Your task to perform on an android device: turn off picture-in-picture Image 0: 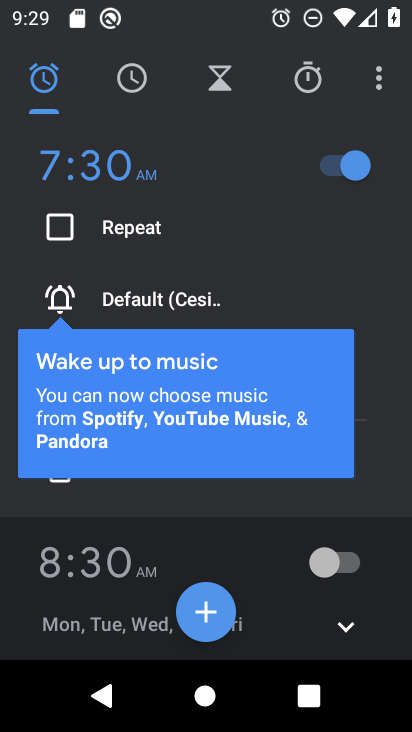
Step 0: press home button
Your task to perform on an android device: turn off picture-in-picture Image 1: 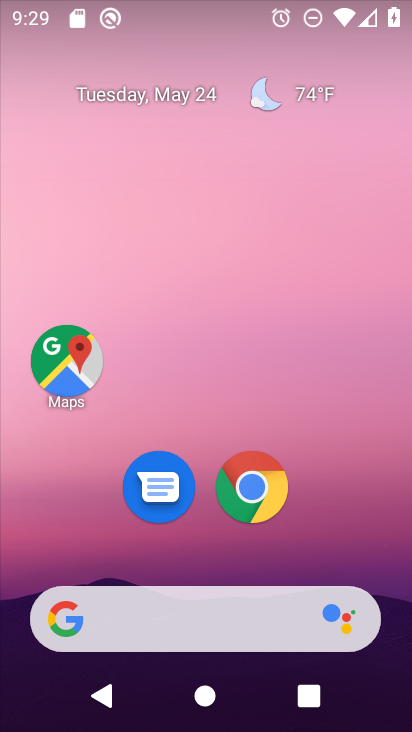
Step 1: click (248, 488)
Your task to perform on an android device: turn off picture-in-picture Image 2: 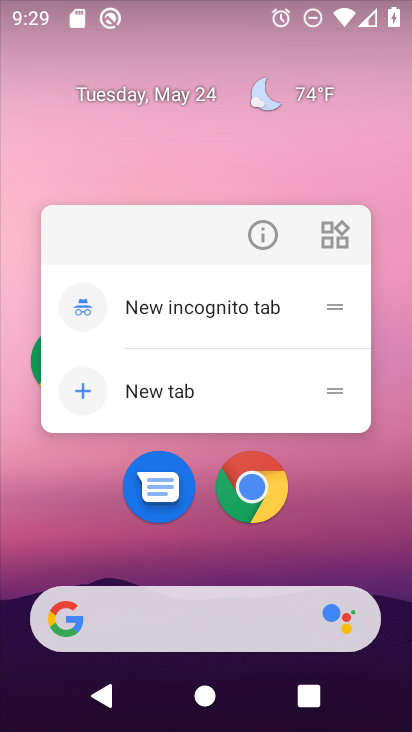
Step 2: click (267, 234)
Your task to perform on an android device: turn off picture-in-picture Image 3: 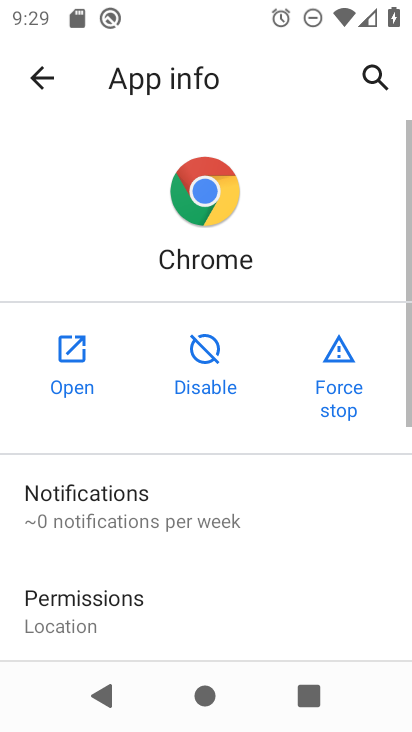
Step 3: drag from (271, 567) to (262, 105)
Your task to perform on an android device: turn off picture-in-picture Image 4: 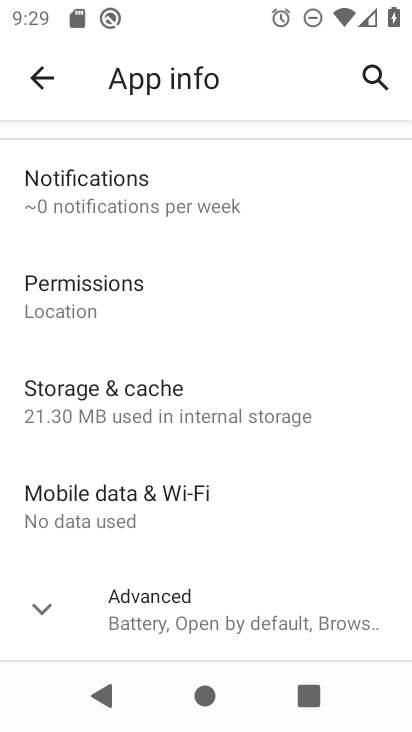
Step 4: drag from (262, 480) to (225, 173)
Your task to perform on an android device: turn off picture-in-picture Image 5: 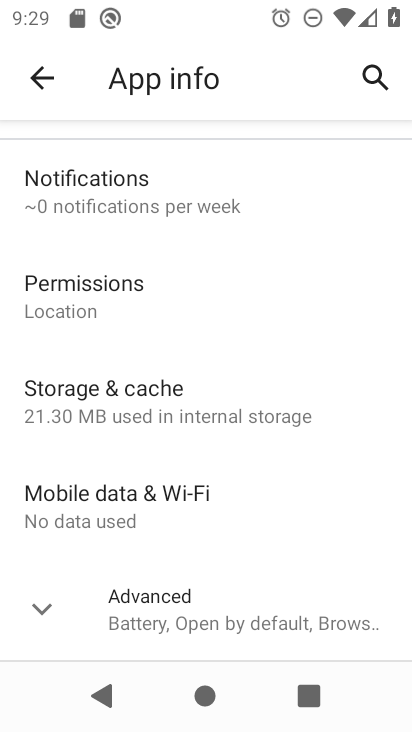
Step 5: click (41, 619)
Your task to perform on an android device: turn off picture-in-picture Image 6: 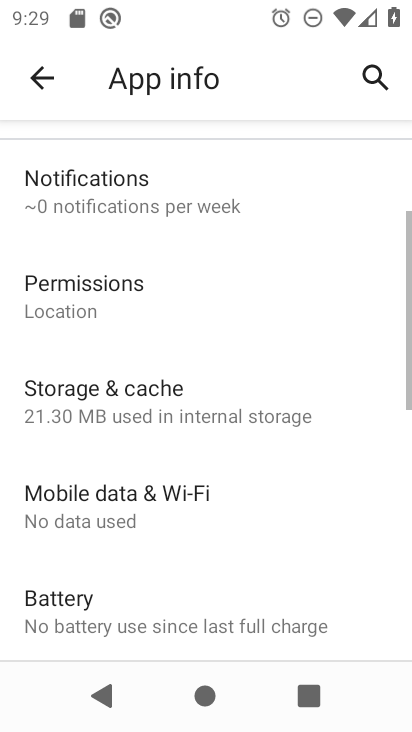
Step 6: drag from (255, 603) to (249, 151)
Your task to perform on an android device: turn off picture-in-picture Image 7: 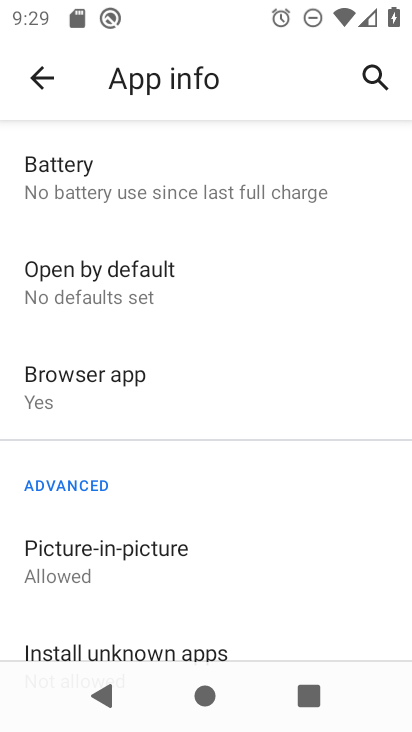
Step 7: click (133, 557)
Your task to perform on an android device: turn off picture-in-picture Image 8: 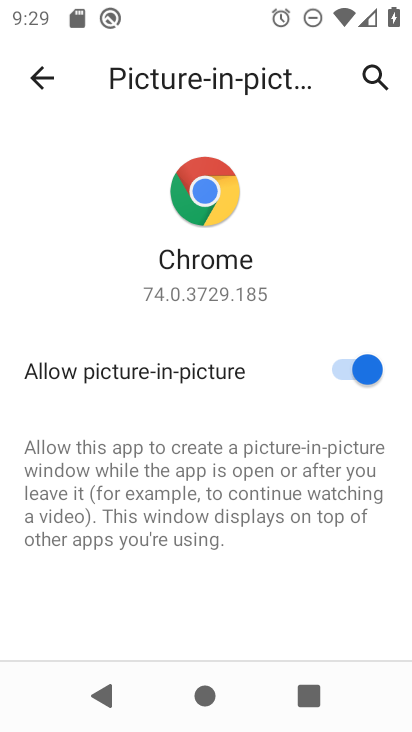
Step 8: click (362, 376)
Your task to perform on an android device: turn off picture-in-picture Image 9: 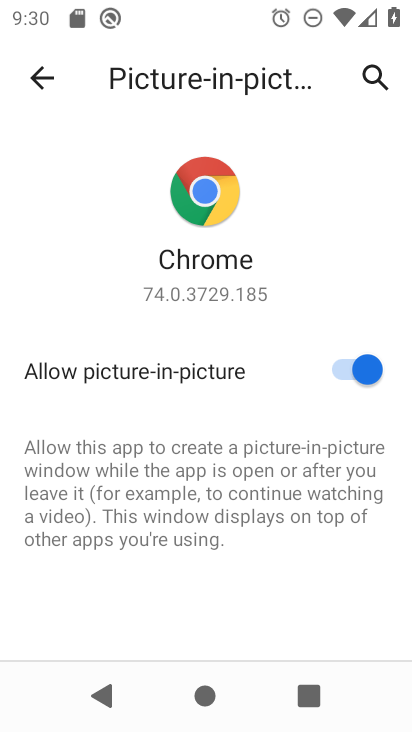
Step 9: click (364, 376)
Your task to perform on an android device: turn off picture-in-picture Image 10: 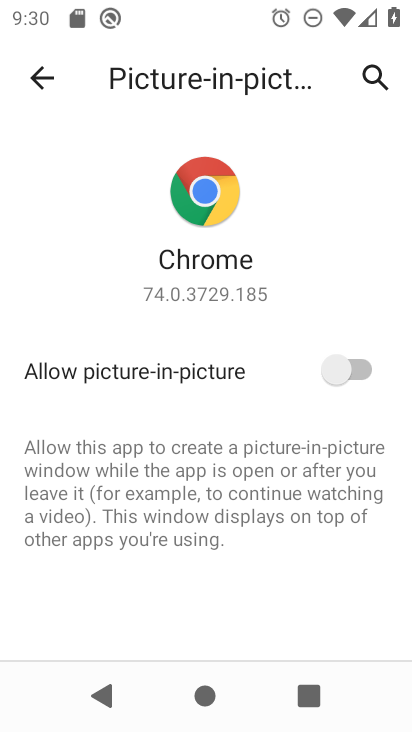
Step 10: task complete